Your task to perform on an android device: Open privacy settings Image 0: 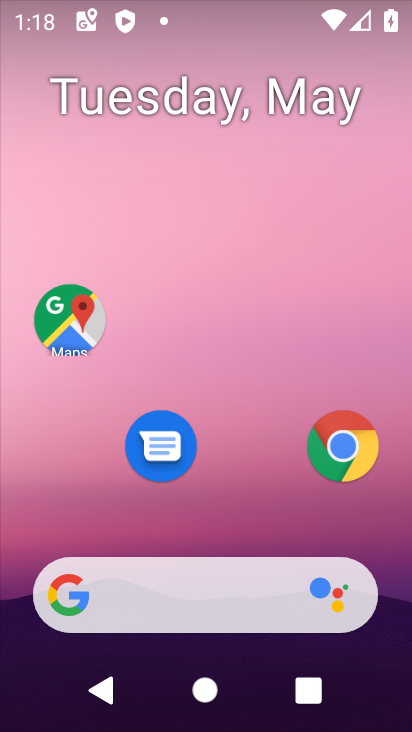
Step 0: drag from (220, 561) to (203, 20)
Your task to perform on an android device: Open privacy settings Image 1: 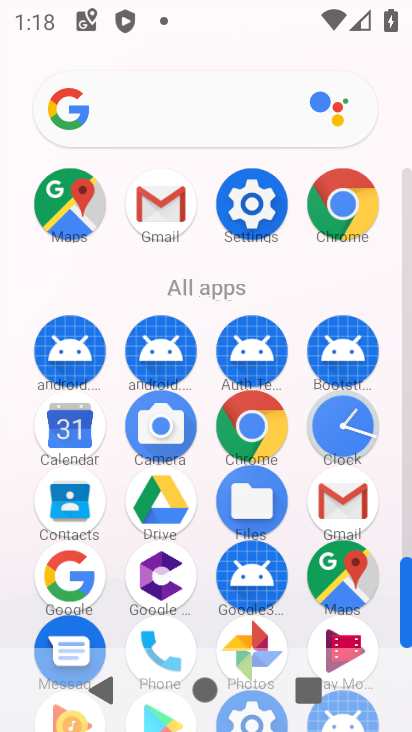
Step 1: click (271, 203)
Your task to perform on an android device: Open privacy settings Image 2: 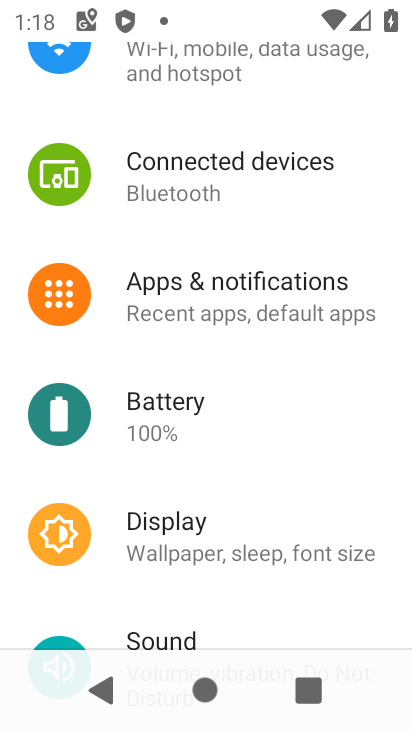
Step 2: drag from (175, 537) to (136, 216)
Your task to perform on an android device: Open privacy settings Image 3: 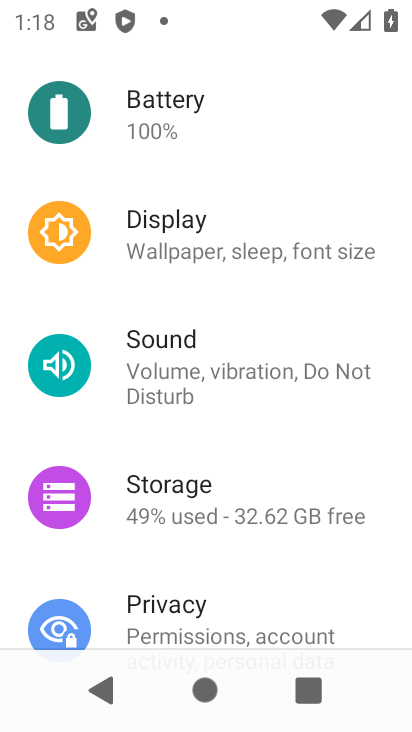
Step 3: click (183, 624)
Your task to perform on an android device: Open privacy settings Image 4: 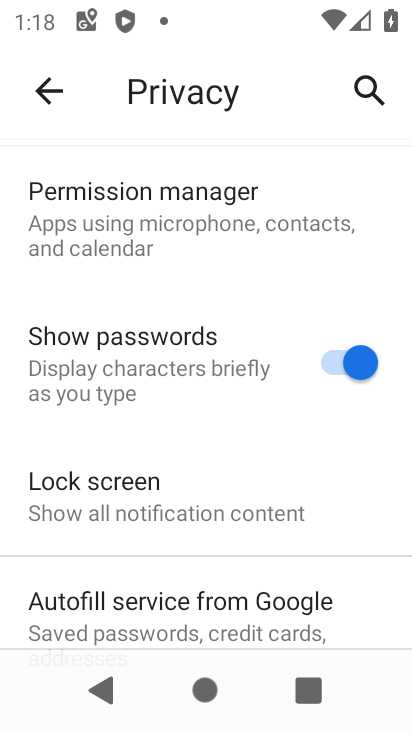
Step 4: task complete